Your task to perform on an android device: Open sound settings Image 0: 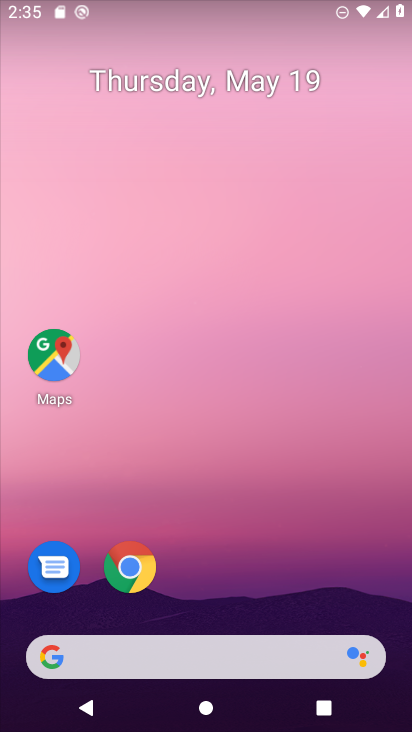
Step 0: drag from (198, 538) to (186, 44)
Your task to perform on an android device: Open sound settings Image 1: 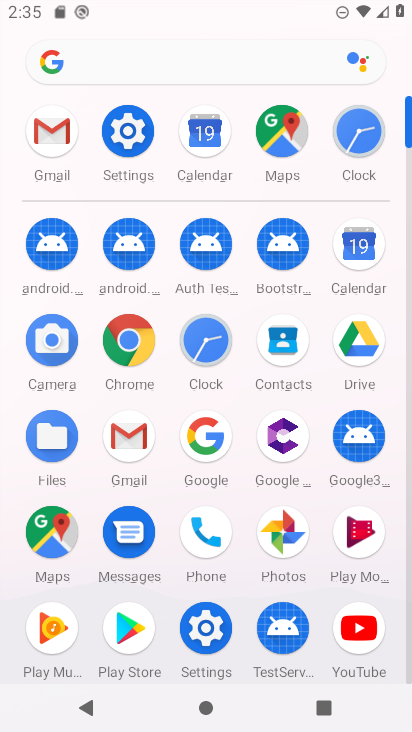
Step 1: click (136, 123)
Your task to perform on an android device: Open sound settings Image 2: 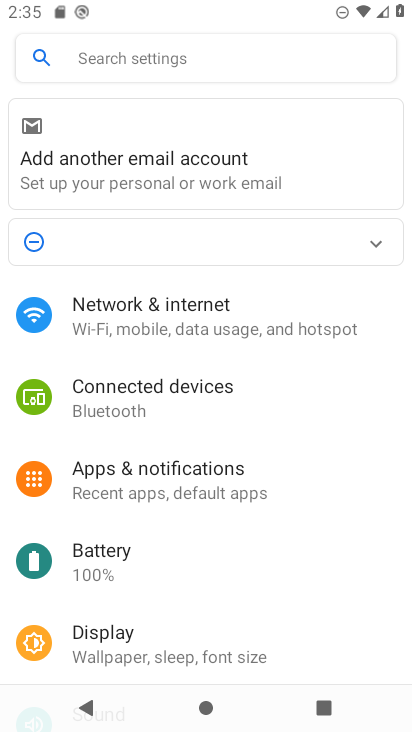
Step 2: drag from (210, 565) to (260, 265)
Your task to perform on an android device: Open sound settings Image 3: 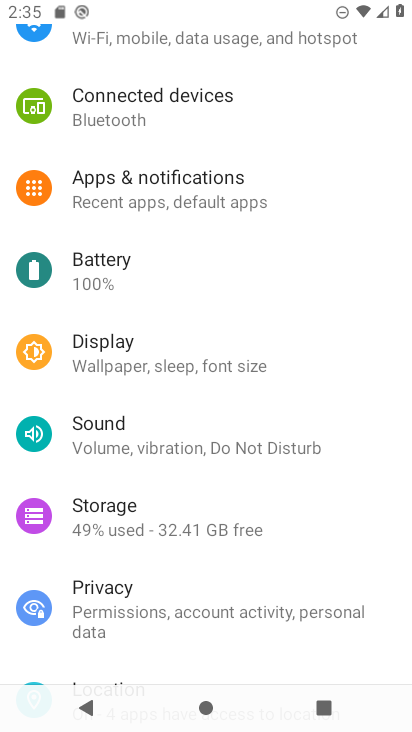
Step 3: click (190, 440)
Your task to perform on an android device: Open sound settings Image 4: 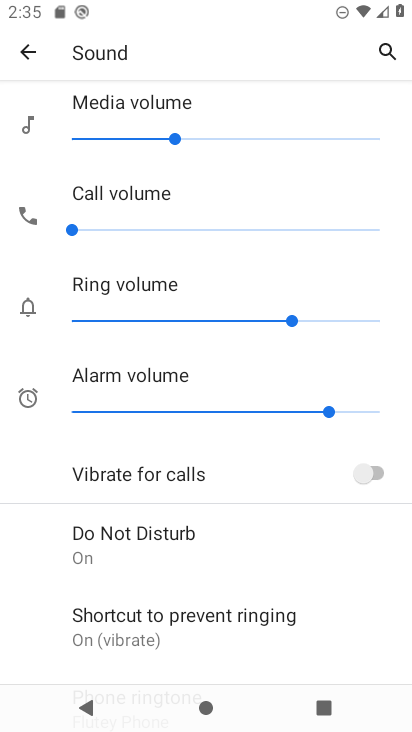
Step 4: task complete